Your task to perform on an android device: change the upload size in google photos Image 0: 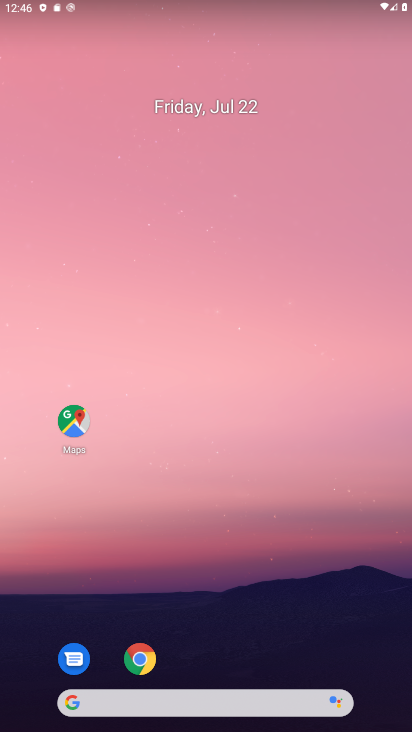
Step 0: drag from (194, 669) to (178, 53)
Your task to perform on an android device: change the upload size in google photos Image 1: 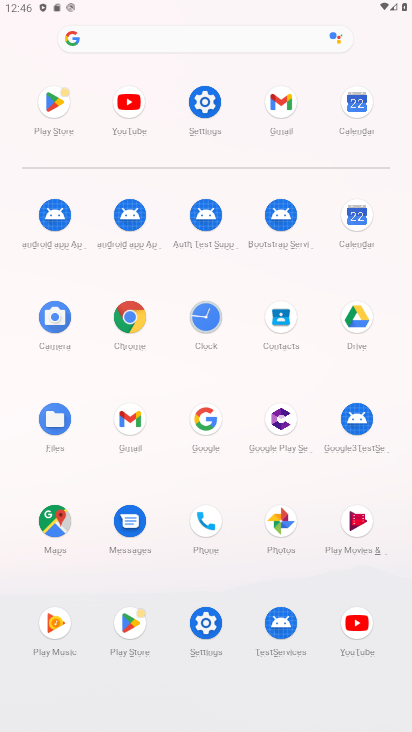
Step 1: click (275, 527)
Your task to perform on an android device: change the upload size in google photos Image 2: 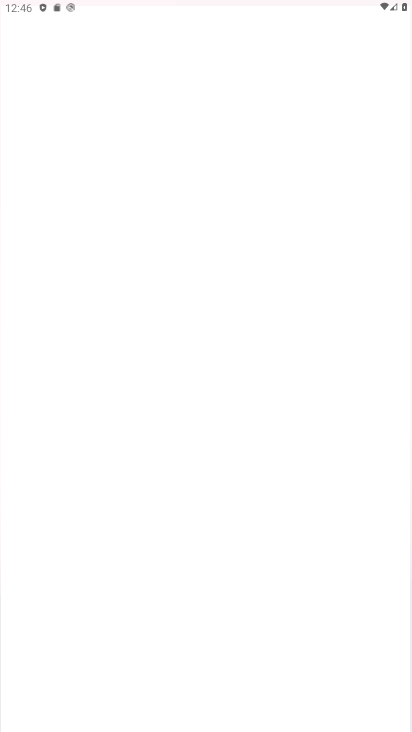
Step 2: task complete